Your task to perform on an android device: Go to Google Image 0: 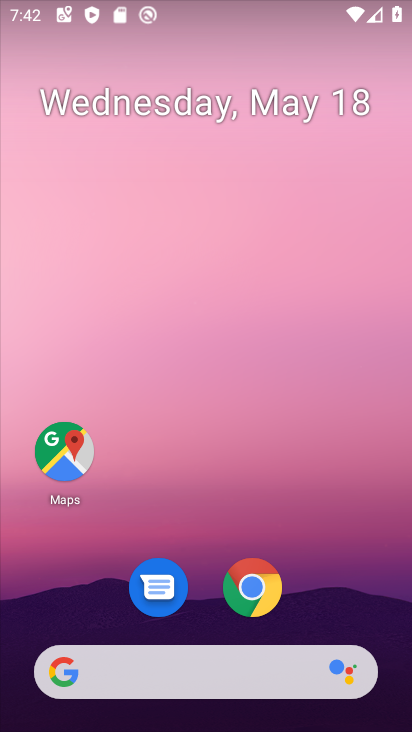
Step 0: click (139, 669)
Your task to perform on an android device: Go to Google Image 1: 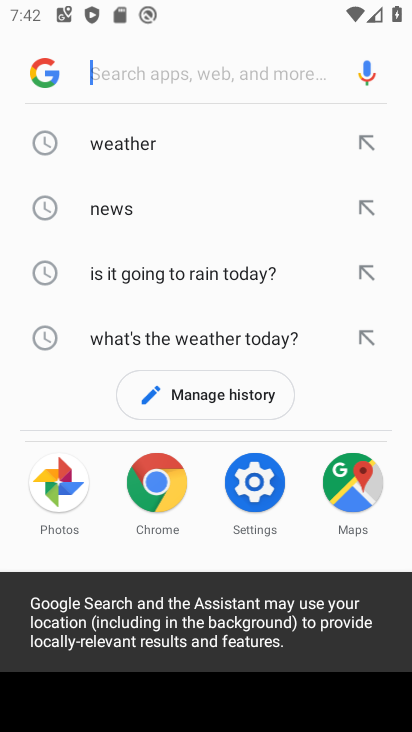
Step 1: task complete